Your task to perform on an android device: choose inbox layout in the gmail app Image 0: 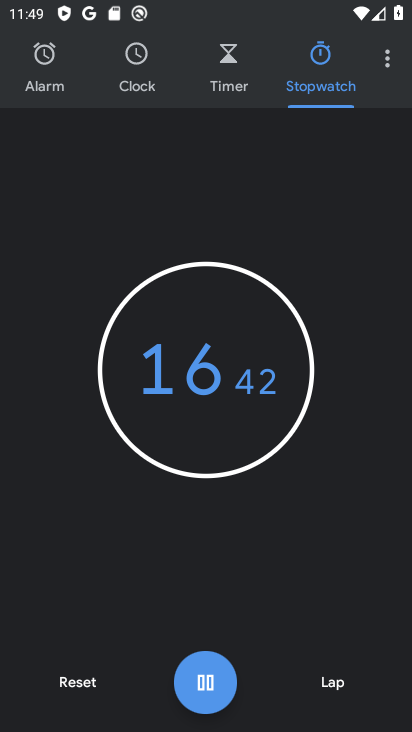
Step 0: press home button
Your task to perform on an android device: choose inbox layout in the gmail app Image 1: 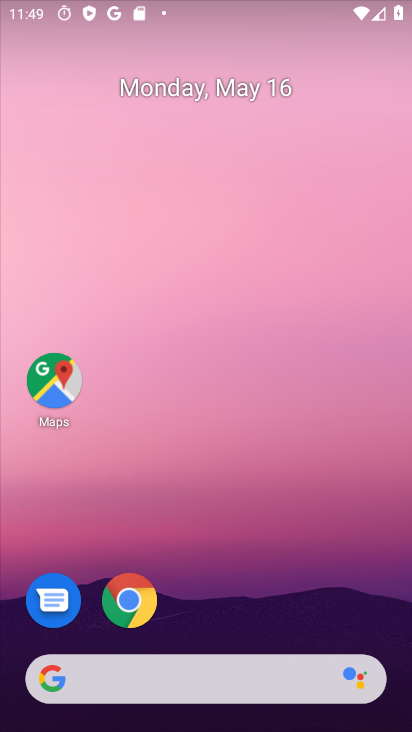
Step 1: drag from (250, 545) to (252, 1)
Your task to perform on an android device: choose inbox layout in the gmail app Image 2: 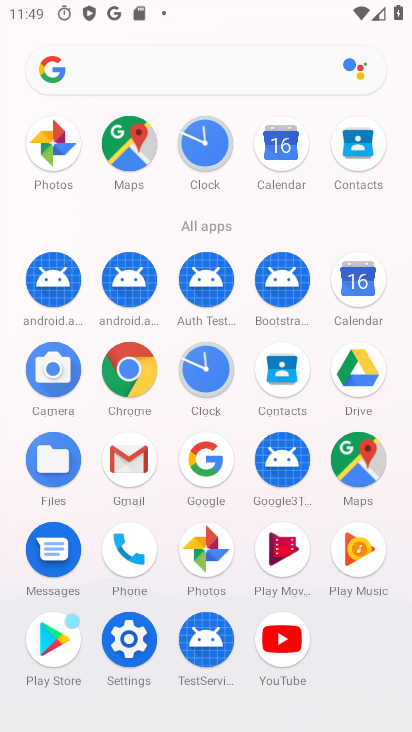
Step 2: click (122, 468)
Your task to perform on an android device: choose inbox layout in the gmail app Image 3: 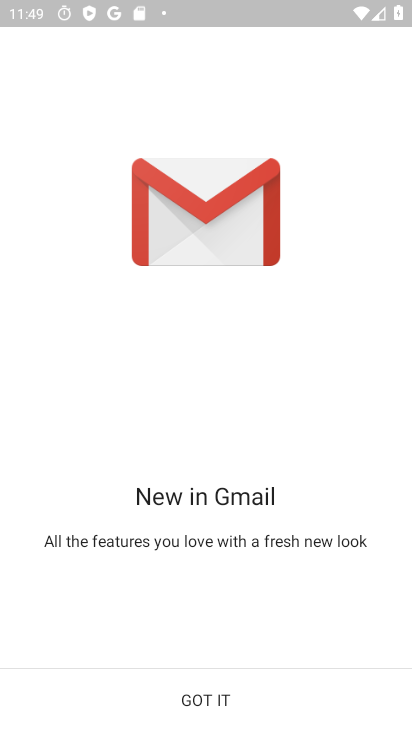
Step 3: click (225, 689)
Your task to perform on an android device: choose inbox layout in the gmail app Image 4: 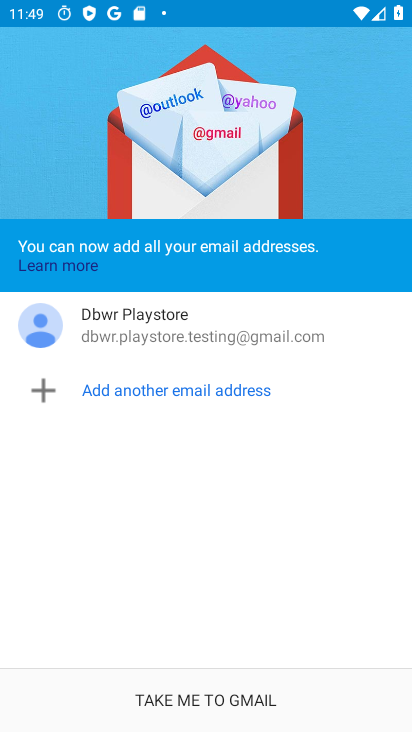
Step 4: click (212, 693)
Your task to perform on an android device: choose inbox layout in the gmail app Image 5: 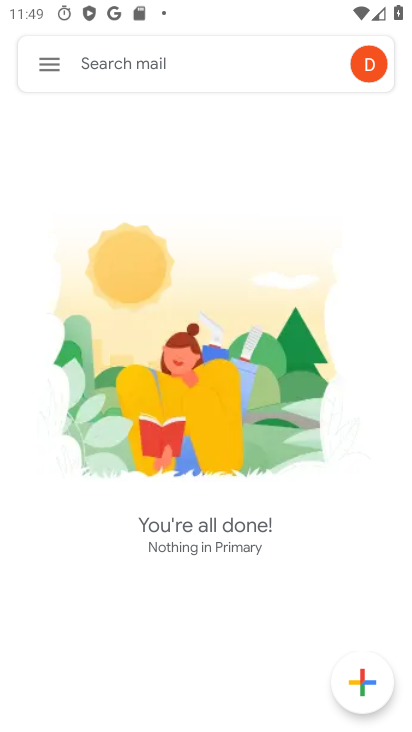
Step 5: click (35, 67)
Your task to perform on an android device: choose inbox layout in the gmail app Image 6: 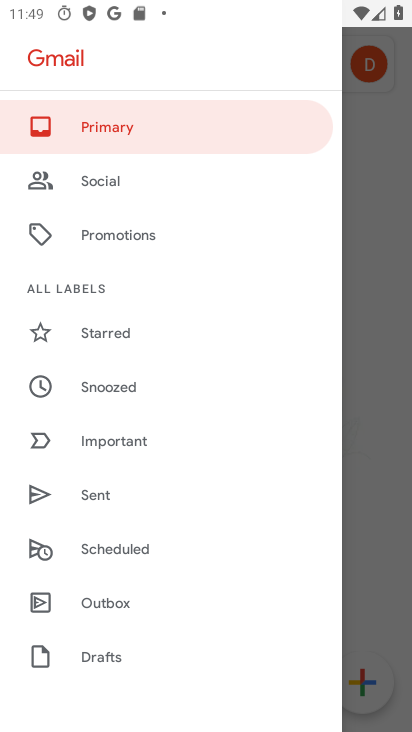
Step 6: drag from (158, 620) to (128, 222)
Your task to perform on an android device: choose inbox layout in the gmail app Image 7: 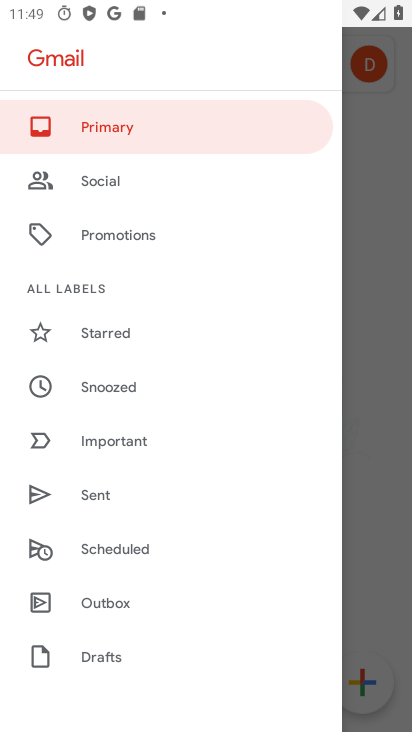
Step 7: drag from (167, 664) to (138, 363)
Your task to perform on an android device: choose inbox layout in the gmail app Image 8: 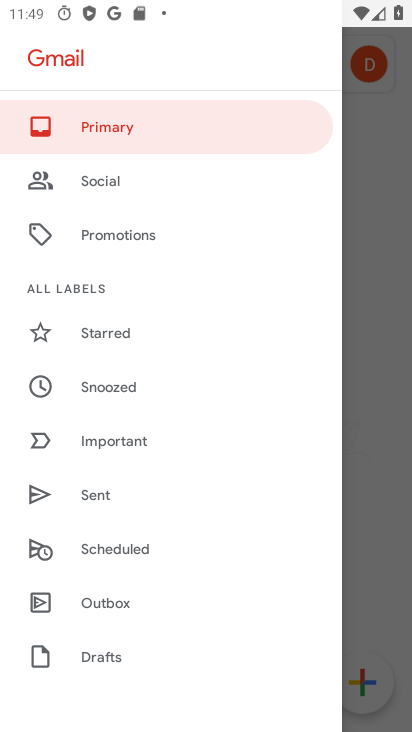
Step 8: drag from (178, 625) to (158, 314)
Your task to perform on an android device: choose inbox layout in the gmail app Image 9: 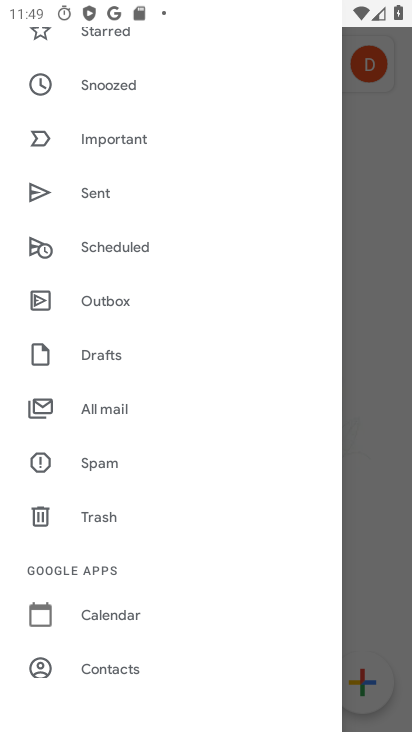
Step 9: drag from (133, 643) to (136, 254)
Your task to perform on an android device: choose inbox layout in the gmail app Image 10: 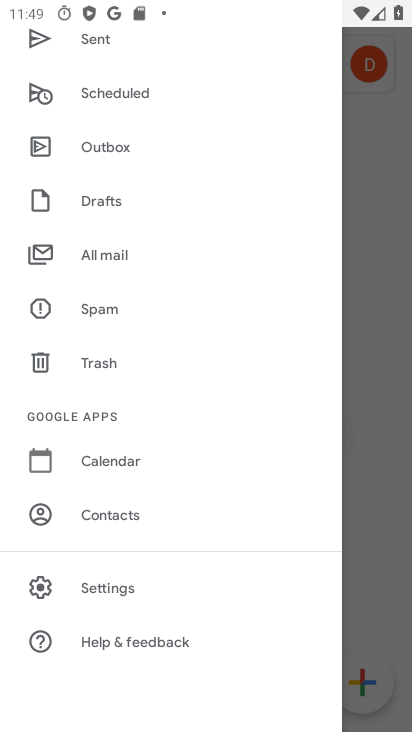
Step 10: click (197, 586)
Your task to perform on an android device: choose inbox layout in the gmail app Image 11: 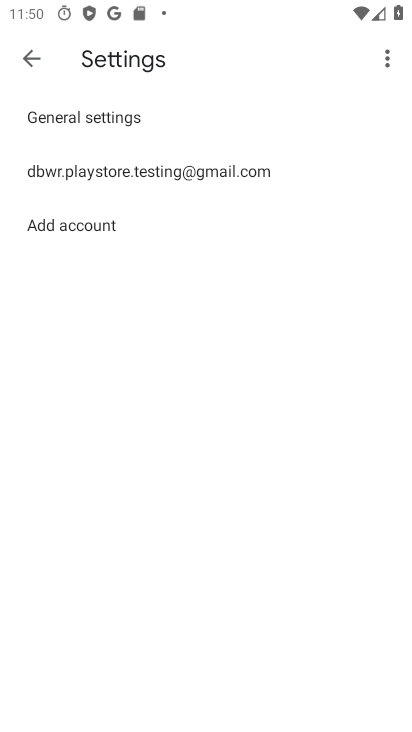
Step 11: click (118, 168)
Your task to perform on an android device: choose inbox layout in the gmail app Image 12: 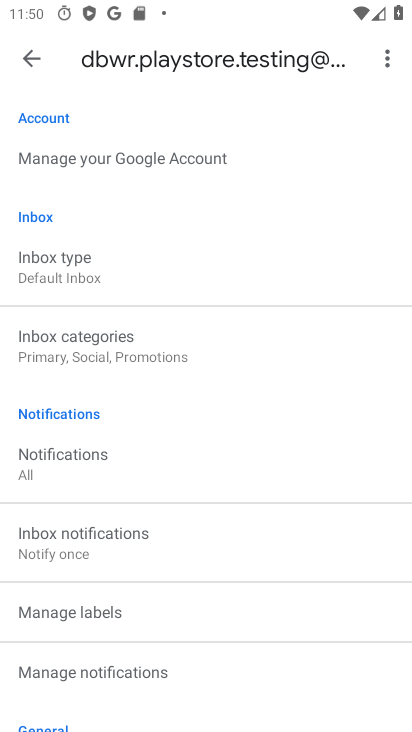
Step 12: click (111, 265)
Your task to perform on an android device: choose inbox layout in the gmail app Image 13: 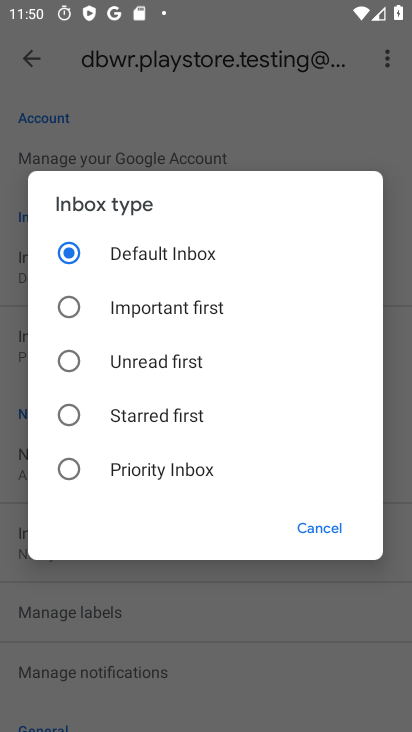
Step 13: click (171, 325)
Your task to perform on an android device: choose inbox layout in the gmail app Image 14: 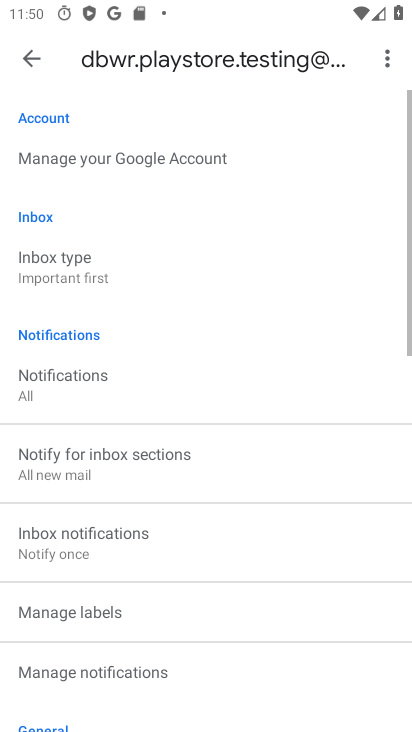
Step 14: task complete